Your task to perform on an android device: Open Android settings Image 0: 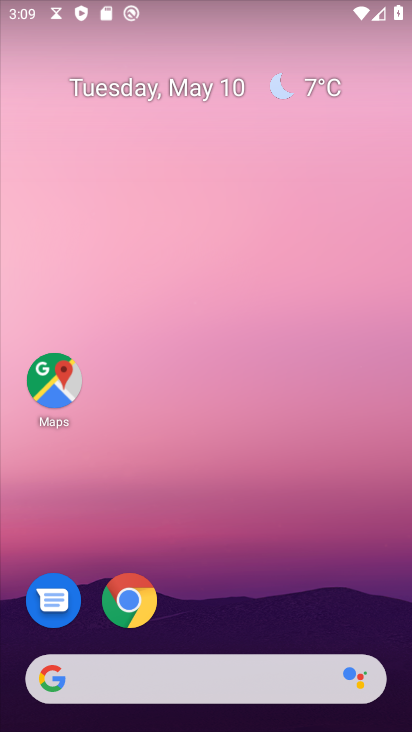
Step 0: drag from (169, 492) to (232, 269)
Your task to perform on an android device: Open Android settings Image 1: 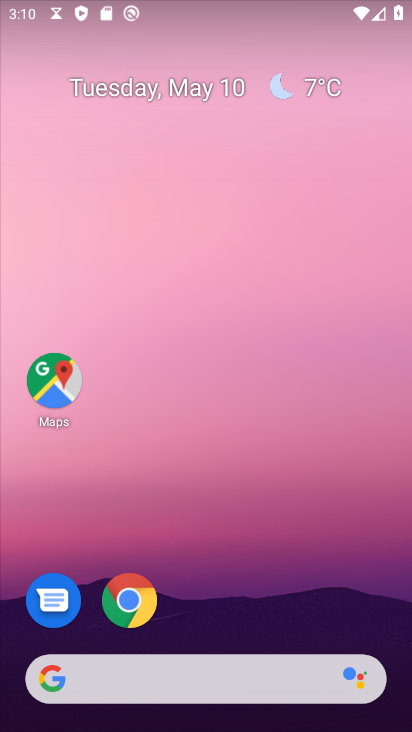
Step 1: drag from (125, 554) to (216, 33)
Your task to perform on an android device: Open Android settings Image 2: 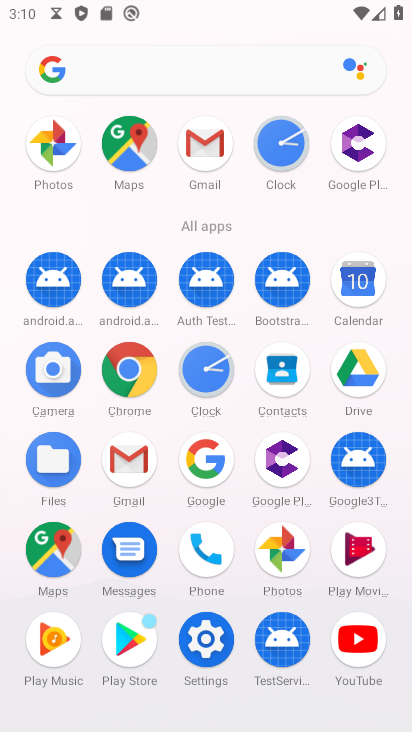
Step 2: click (201, 621)
Your task to perform on an android device: Open Android settings Image 3: 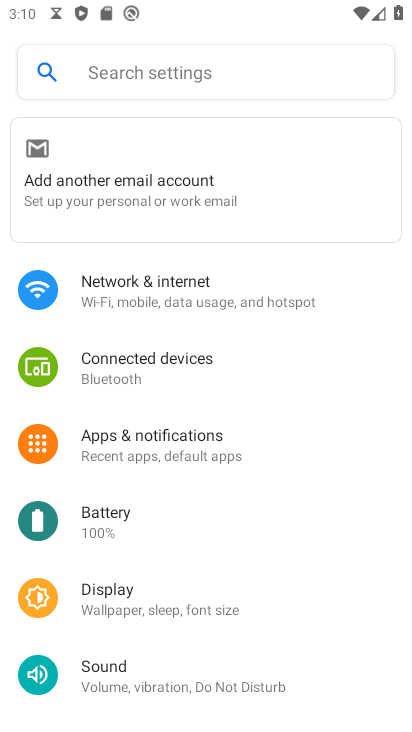
Step 3: drag from (218, 533) to (319, 135)
Your task to perform on an android device: Open Android settings Image 4: 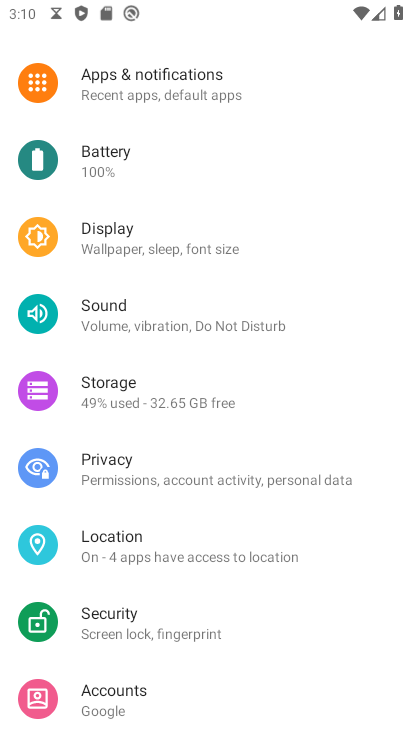
Step 4: drag from (272, 618) to (402, 151)
Your task to perform on an android device: Open Android settings Image 5: 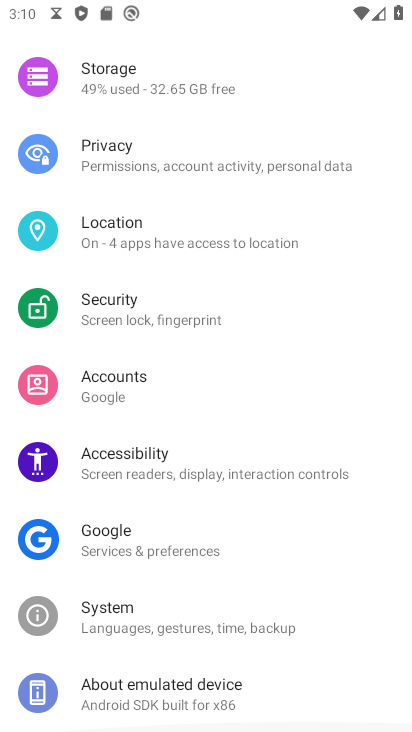
Step 5: drag from (227, 602) to (349, 32)
Your task to perform on an android device: Open Android settings Image 6: 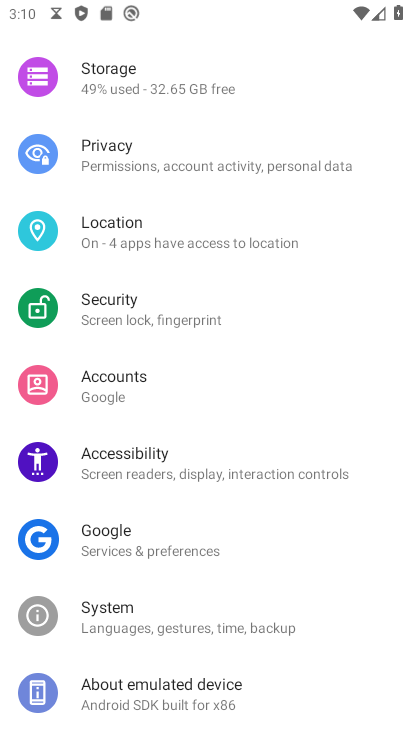
Step 6: drag from (271, 163) to (273, 673)
Your task to perform on an android device: Open Android settings Image 7: 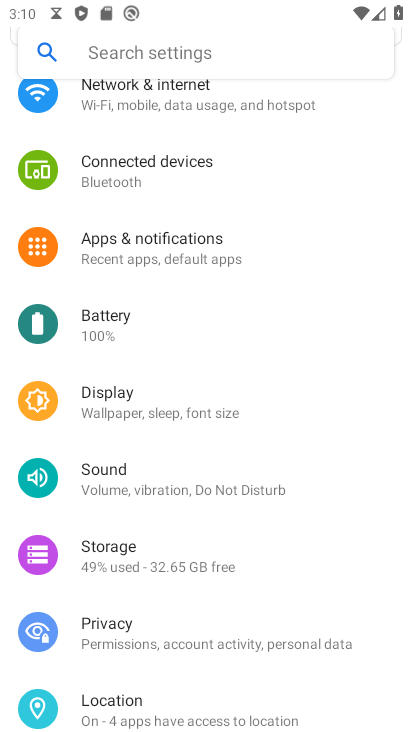
Step 7: drag from (269, 253) to (238, 658)
Your task to perform on an android device: Open Android settings Image 8: 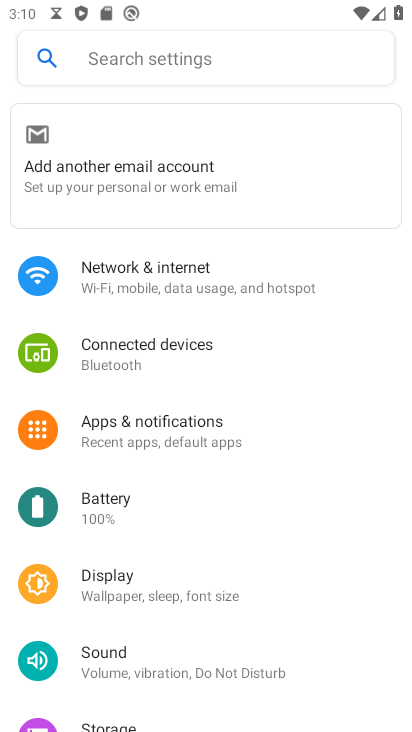
Step 8: drag from (214, 612) to (320, 105)
Your task to perform on an android device: Open Android settings Image 9: 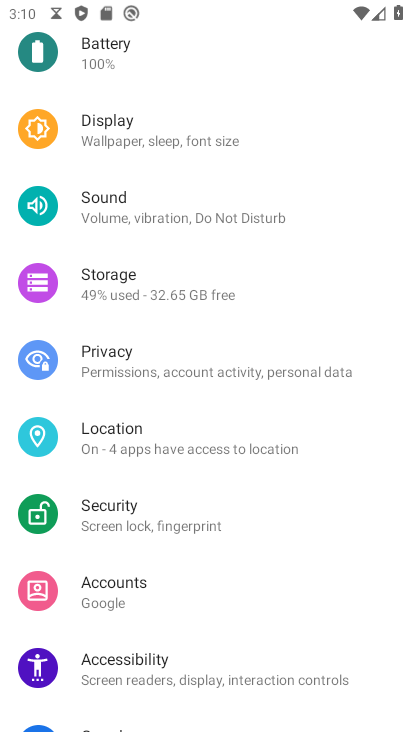
Step 9: drag from (352, 250) to (388, 722)
Your task to perform on an android device: Open Android settings Image 10: 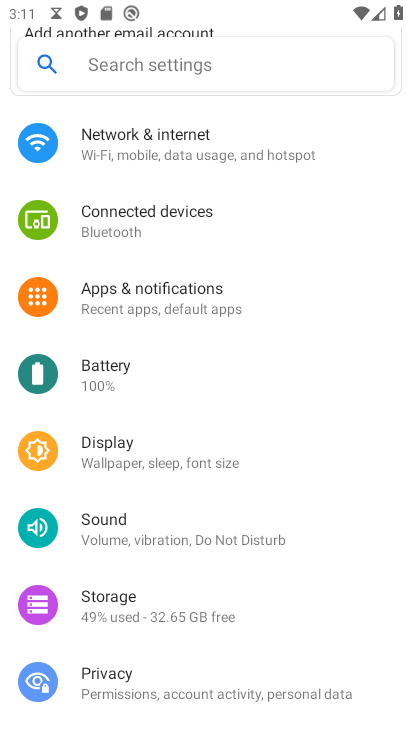
Step 10: press home button
Your task to perform on an android device: Open Android settings Image 11: 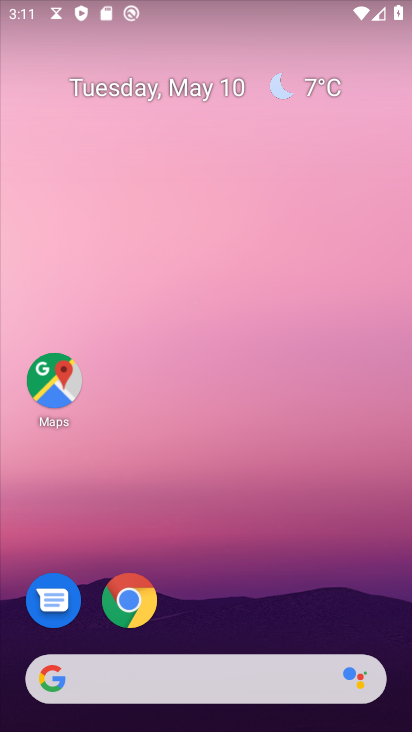
Step 11: drag from (272, 615) to (304, 237)
Your task to perform on an android device: Open Android settings Image 12: 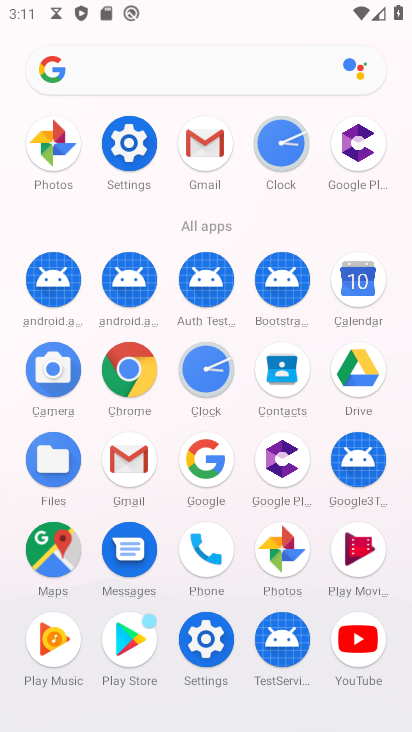
Step 12: click (117, 159)
Your task to perform on an android device: Open Android settings Image 13: 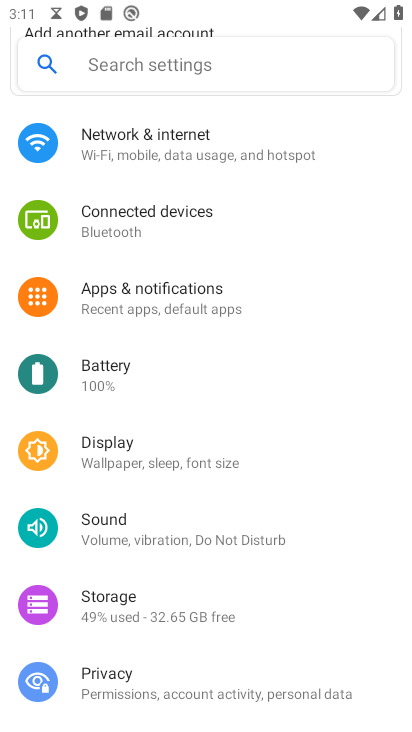
Step 13: task complete